Your task to perform on an android device: Set the phone to "Do not disturb". Image 0: 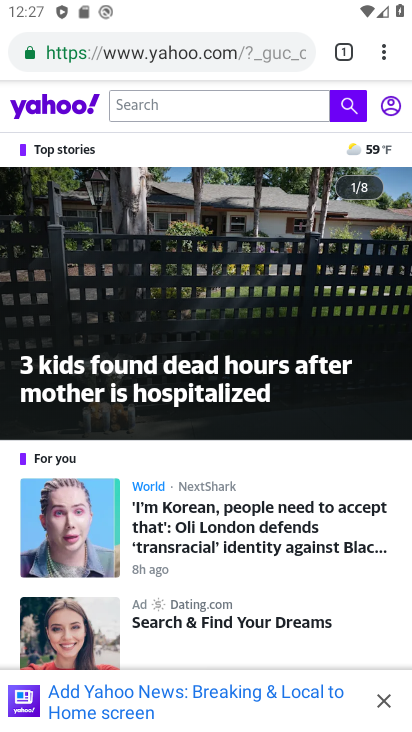
Step 0: press home button
Your task to perform on an android device: Set the phone to "Do not disturb". Image 1: 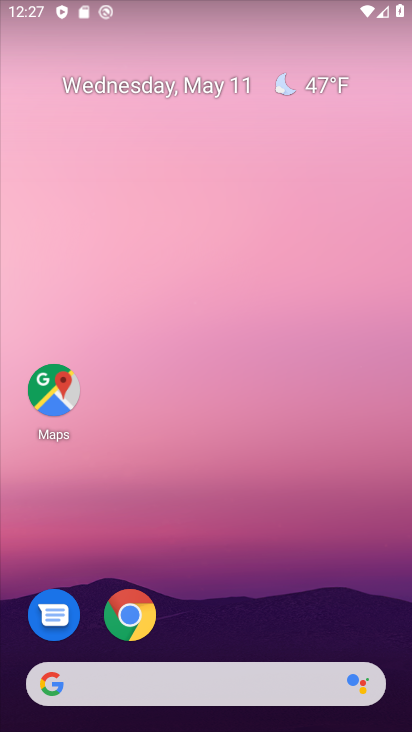
Step 1: drag from (257, 566) to (292, 81)
Your task to perform on an android device: Set the phone to "Do not disturb". Image 2: 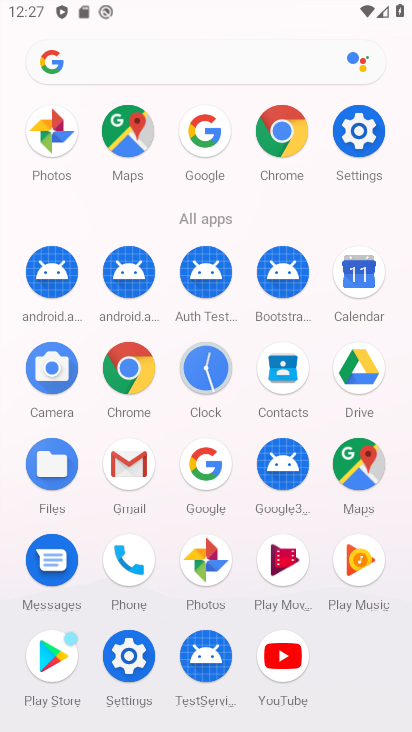
Step 2: click (331, 147)
Your task to perform on an android device: Set the phone to "Do not disturb". Image 3: 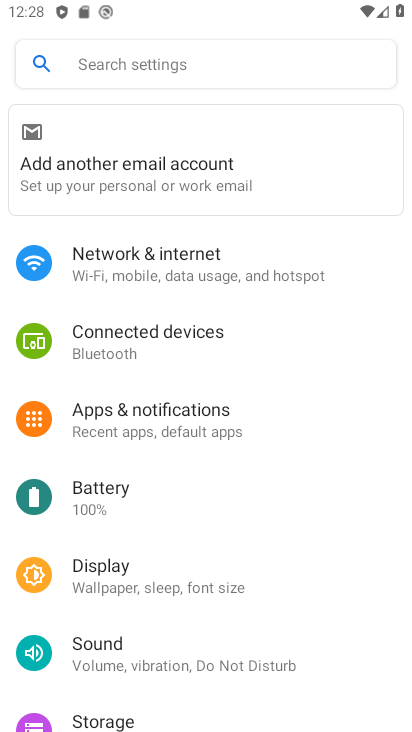
Step 3: drag from (196, 608) to (193, 210)
Your task to perform on an android device: Set the phone to "Do not disturb". Image 4: 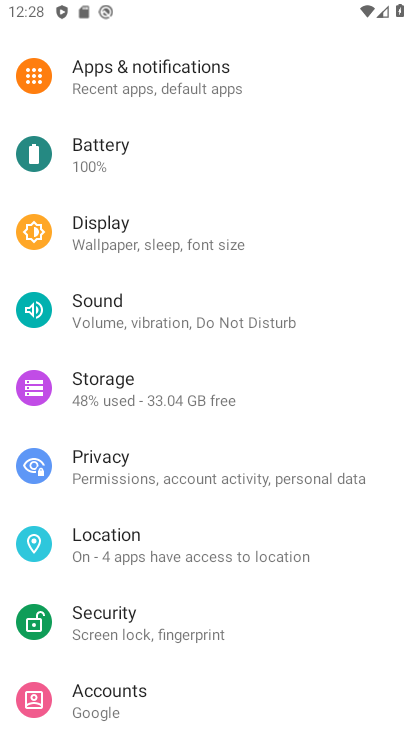
Step 4: click (115, 302)
Your task to perform on an android device: Set the phone to "Do not disturb". Image 5: 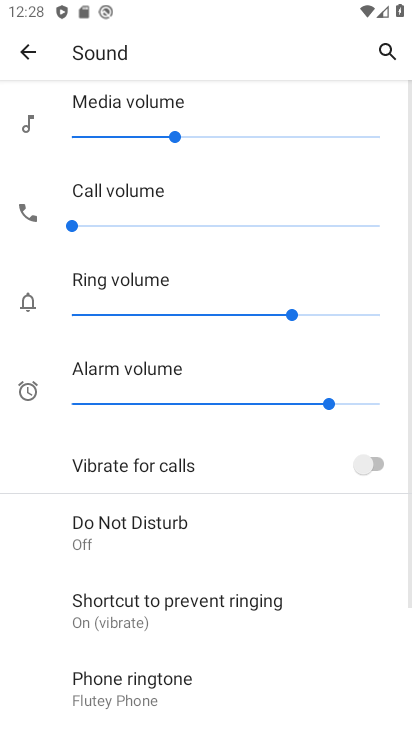
Step 5: drag from (209, 596) to (173, 291)
Your task to perform on an android device: Set the phone to "Do not disturb". Image 6: 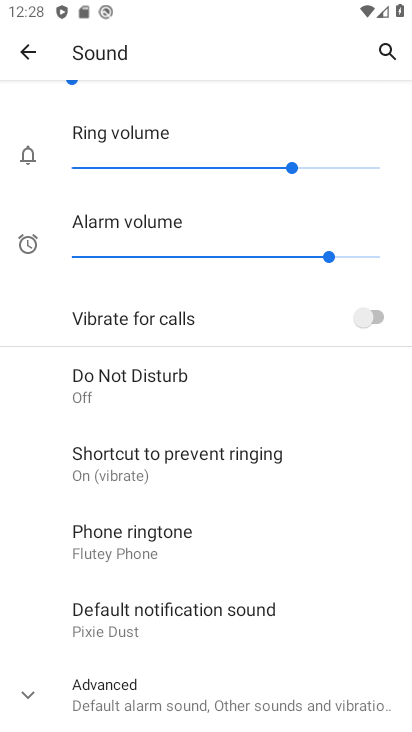
Step 6: drag from (223, 612) to (246, 287)
Your task to perform on an android device: Set the phone to "Do not disturb". Image 7: 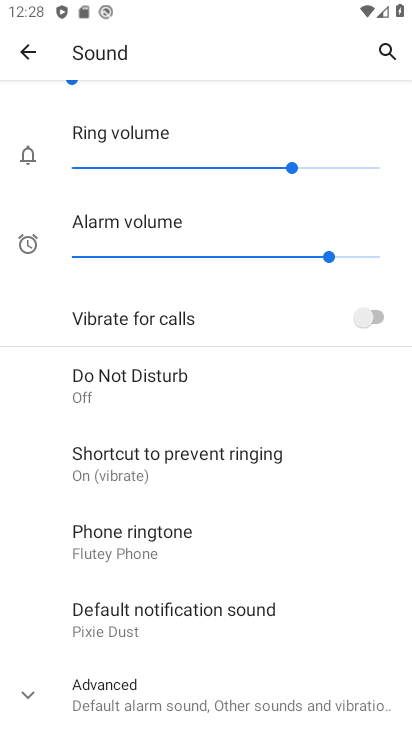
Step 7: drag from (215, 616) to (264, 255)
Your task to perform on an android device: Set the phone to "Do not disturb". Image 8: 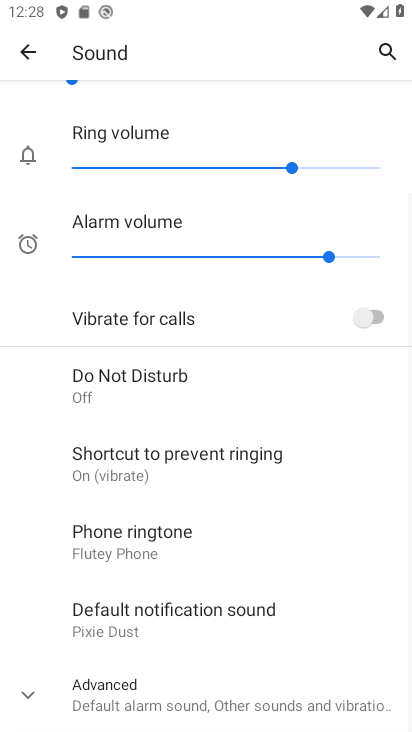
Step 8: click (93, 382)
Your task to perform on an android device: Set the phone to "Do not disturb". Image 9: 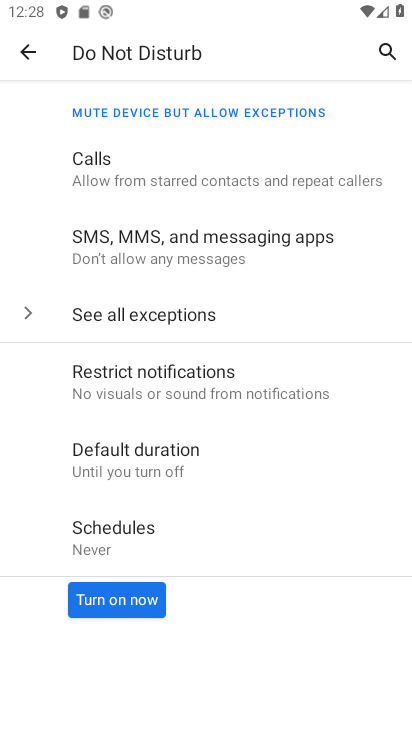
Step 9: click (131, 597)
Your task to perform on an android device: Set the phone to "Do not disturb". Image 10: 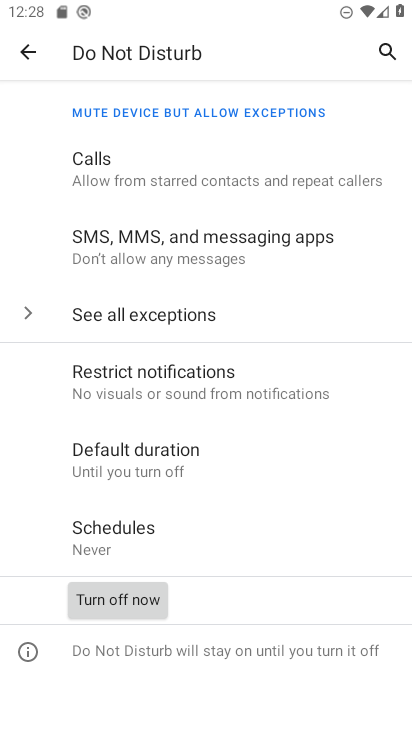
Step 10: task complete